Your task to perform on an android device: change notification settings in the gmail app Image 0: 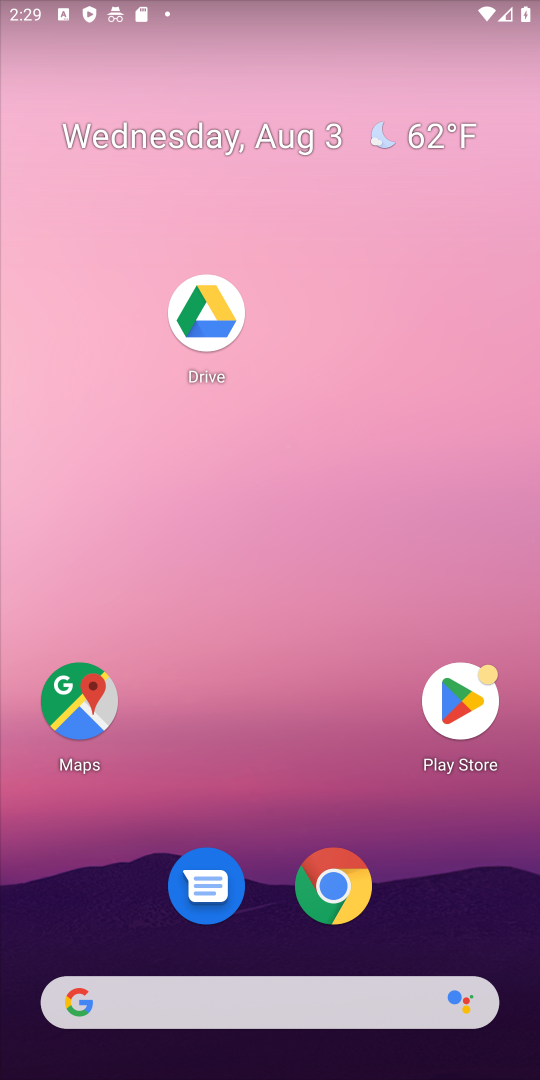
Step 0: drag from (325, 418) to (316, 3)
Your task to perform on an android device: change notification settings in the gmail app Image 1: 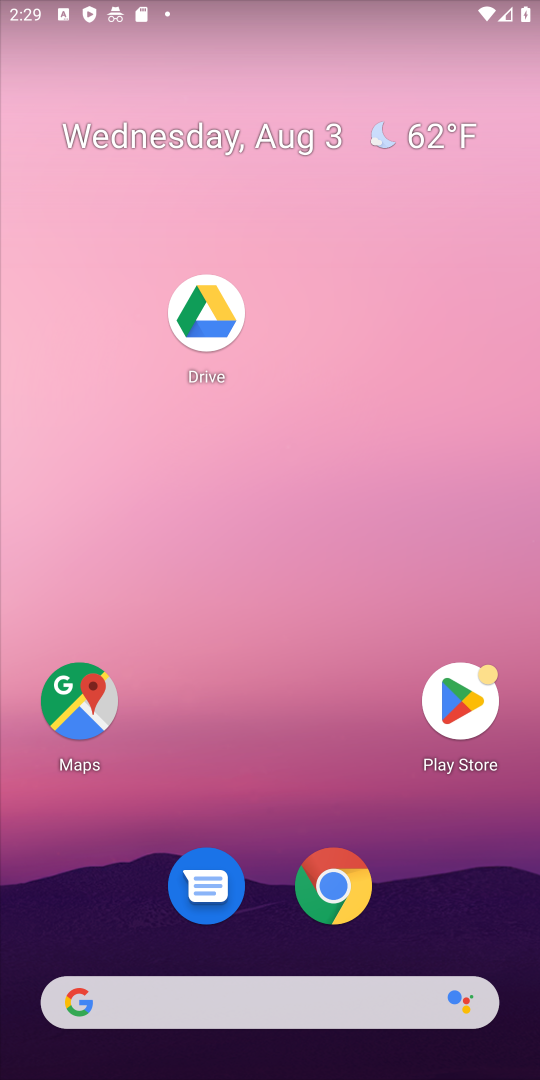
Step 1: drag from (336, 877) to (347, 0)
Your task to perform on an android device: change notification settings in the gmail app Image 2: 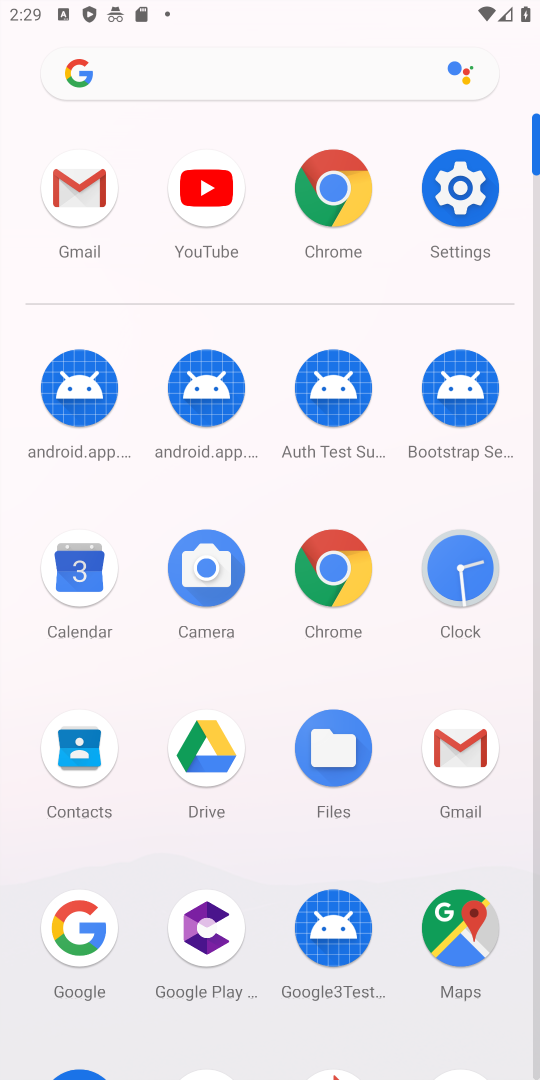
Step 2: click (453, 756)
Your task to perform on an android device: change notification settings in the gmail app Image 3: 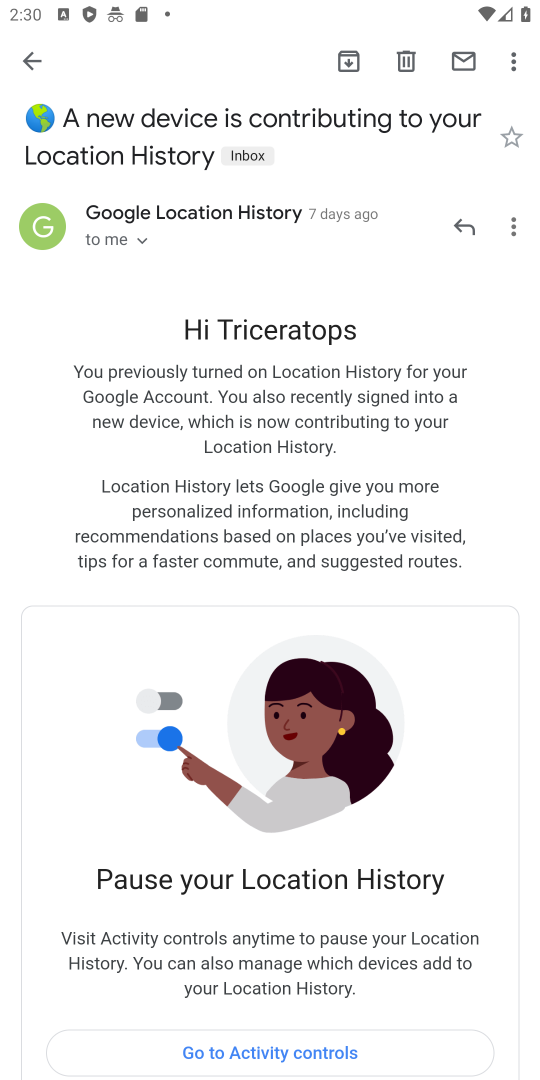
Step 3: press back button
Your task to perform on an android device: change notification settings in the gmail app Image 4: 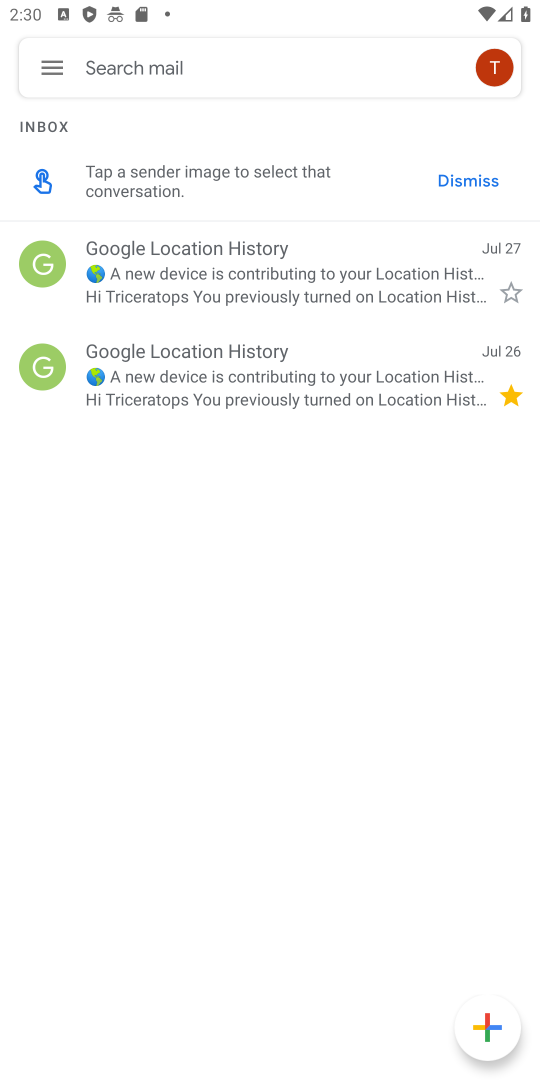
Step 4: click (49, 64)
Your task to perform on an android device: change notification settings in the gmail app Image 5: 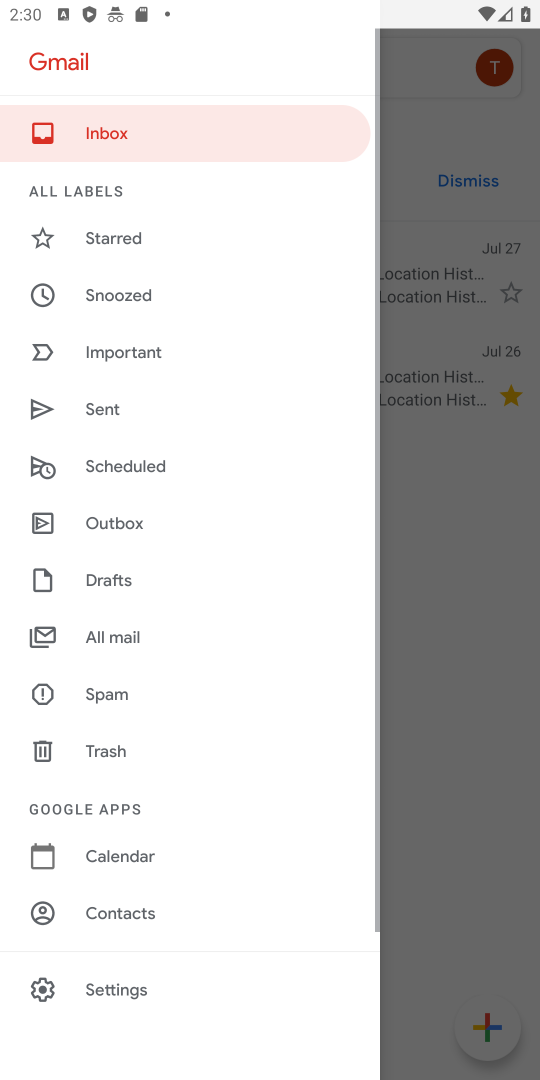
Step 5: drag from (102, 958) to (163, 194)
Your task to perform on an android device: change notification settings in the gmail app Image 6: 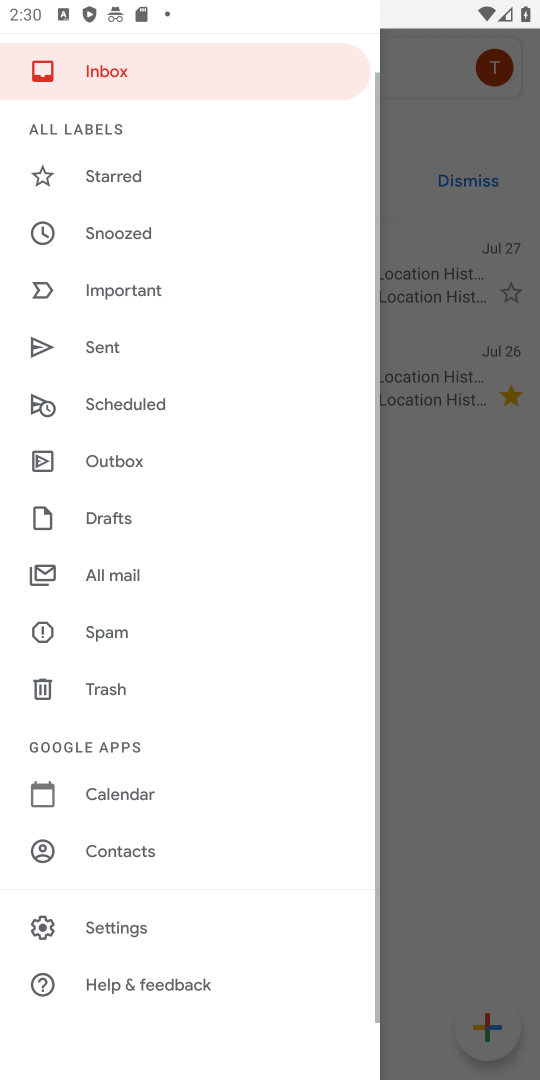
Step 6: click (165, 923)
Your task to perform on an android device: change notification settings in the gmail app Image 7: 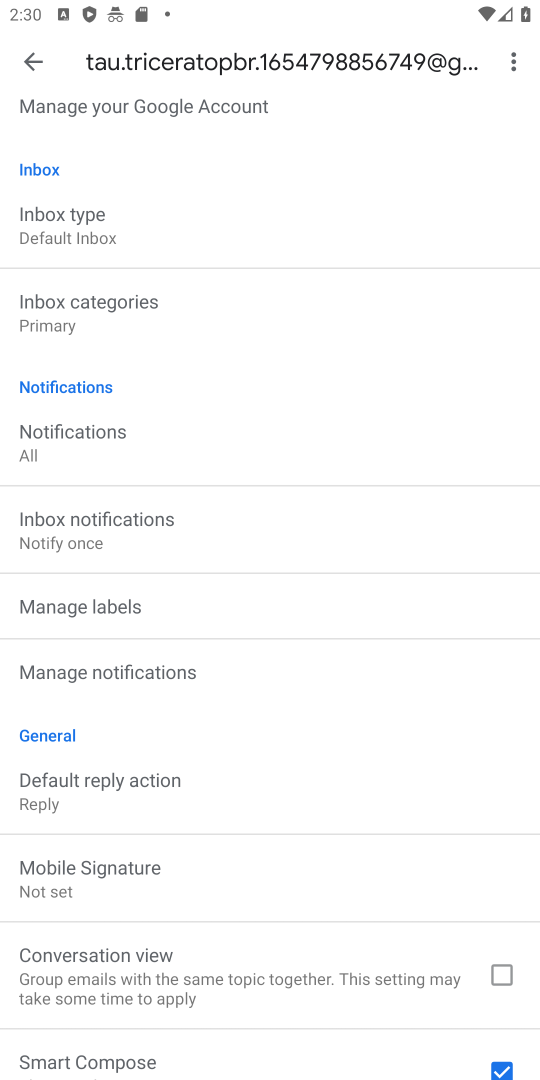
Step 7: click (114, 664)
Your task to perform on an android device: change notification settings in the gmail app Image 8: 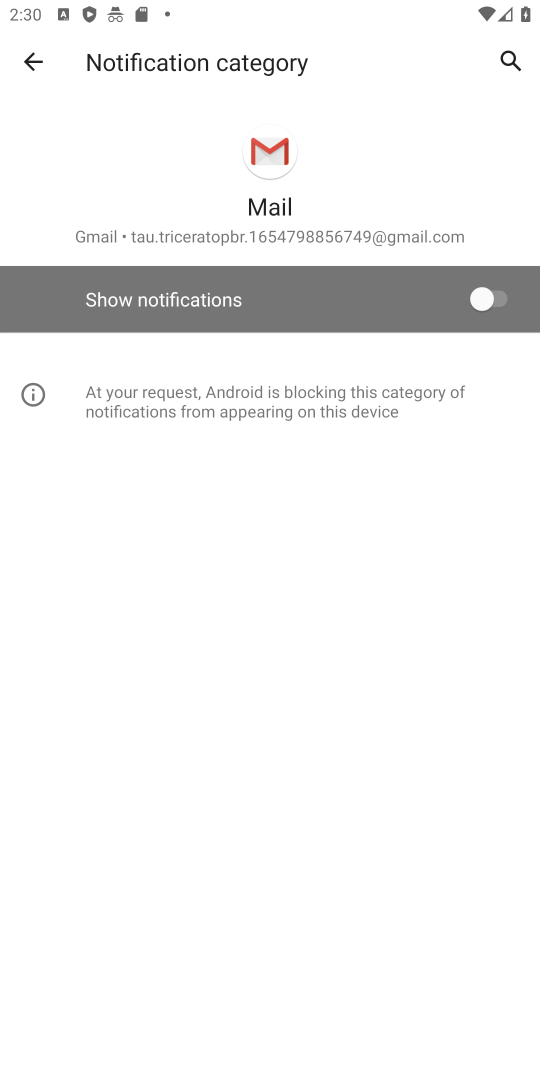
Step 8: click (497, 293)
Your task to perform on an android device: change notification settings in the gmail app Image 9: 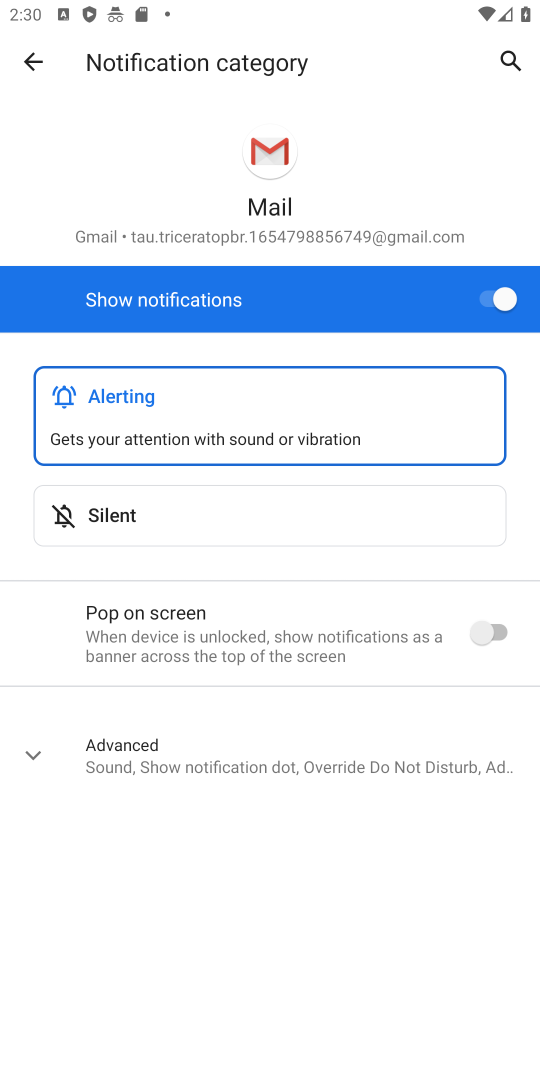
Step 9: task complete